Your task to perform on an android device: What's the top post on reddit today? Image 0: 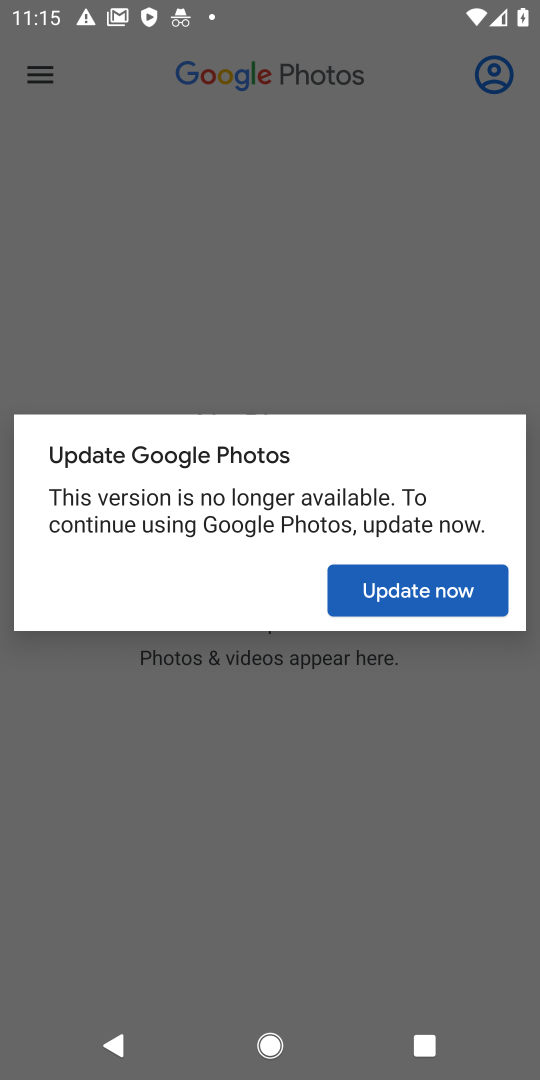
Step 0: press home button
Your task to perform on an android device: What's the top post on reddit today? Image 1: 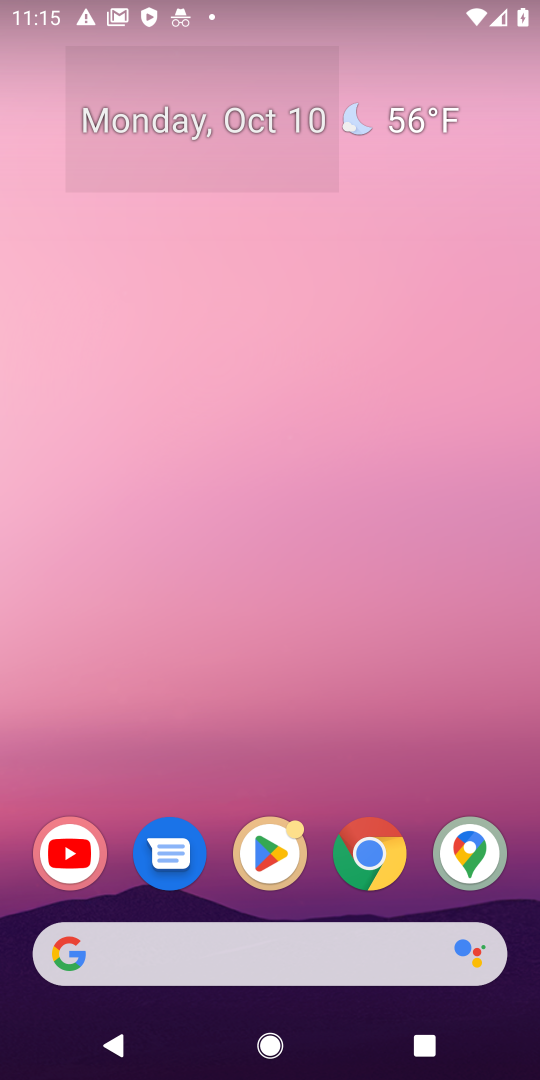
Step 1: click (227, 962)
Your task to perform on an android device: What's the top post on reddit today? Image 2: 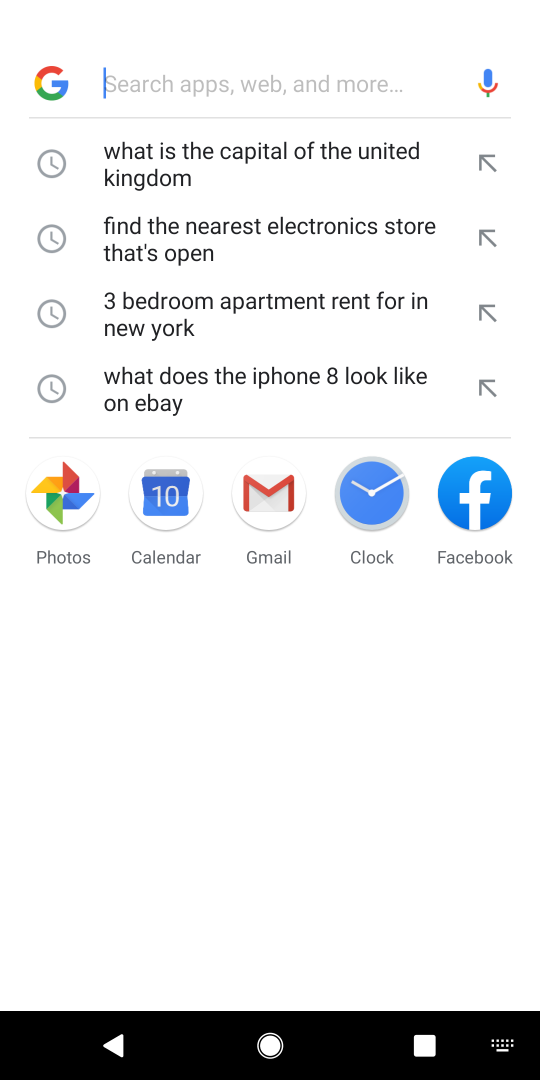
Step 2: type "What's the top post on reddit today"
Your task to perform on an android device: What's the top post on reddit today? Image 3: 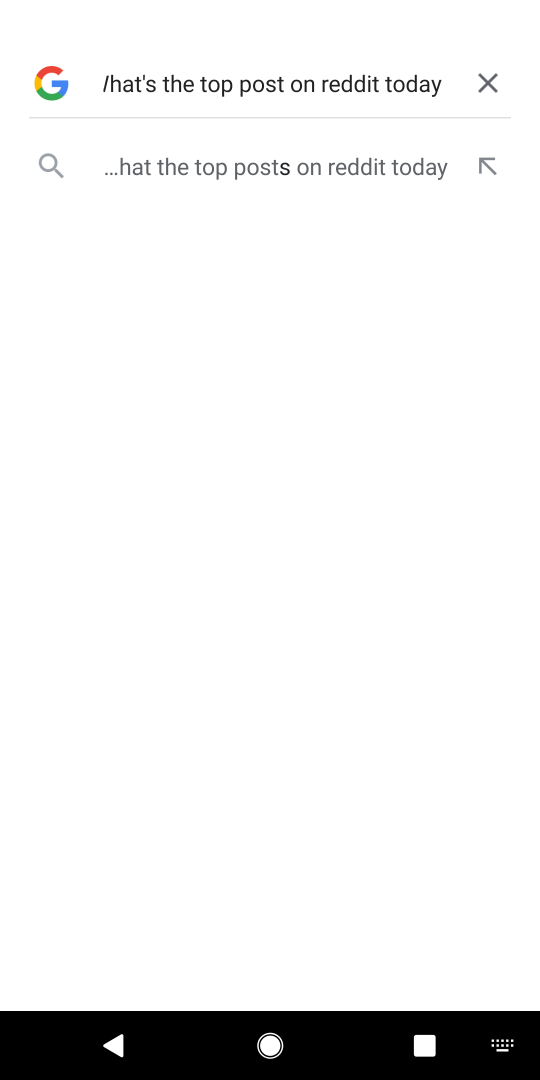
Step 3: press enter
Your task to perform on an android device: What's the top post on reddit today? Image 4: 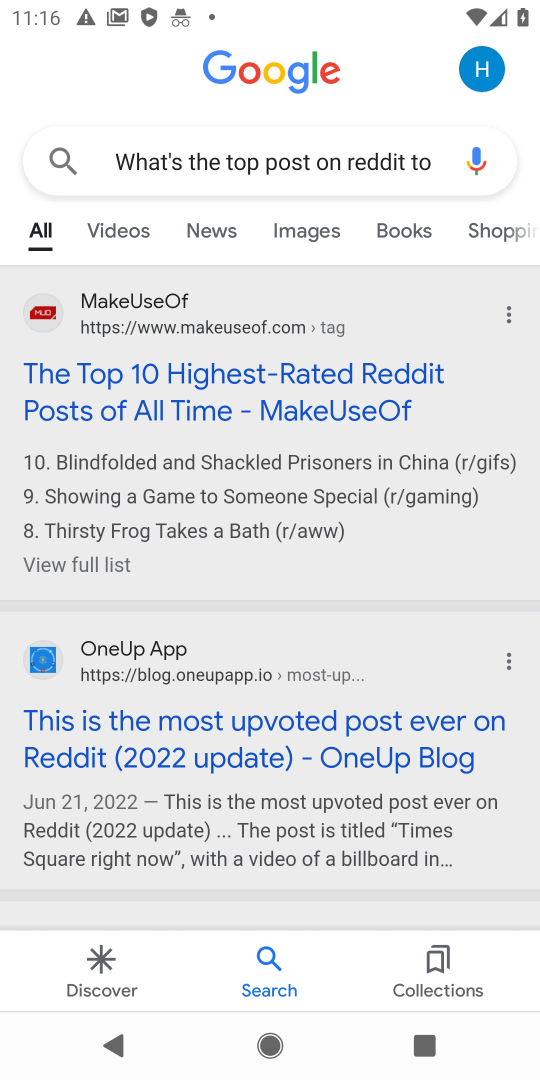
Step 4: click (287, 398)
Your task to perform on an android device: What's the top post on reddit today? Image 5: 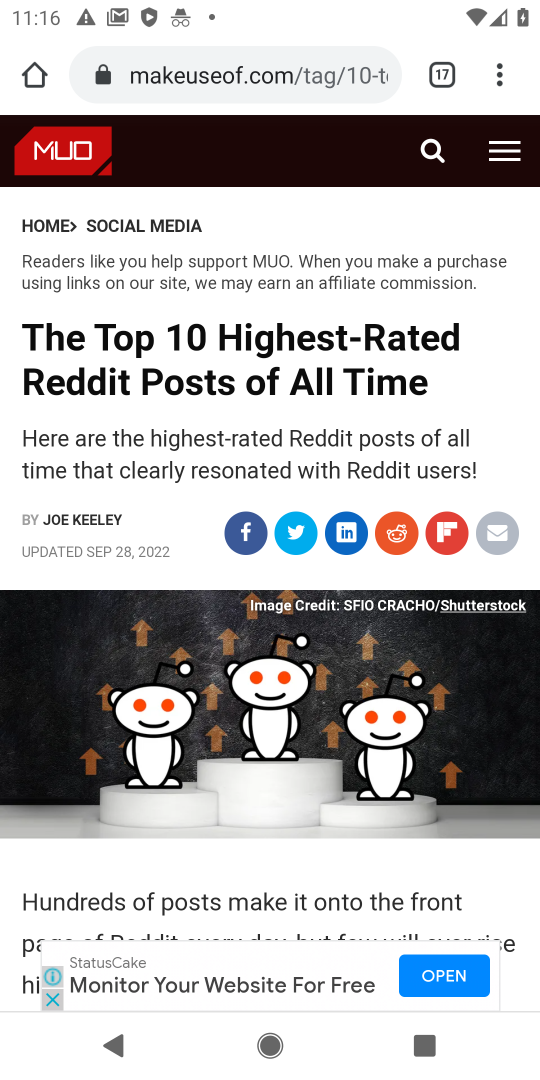
Step 5: task complete